Your task to perform on an android device: Go to Yahoo.com Image 0: 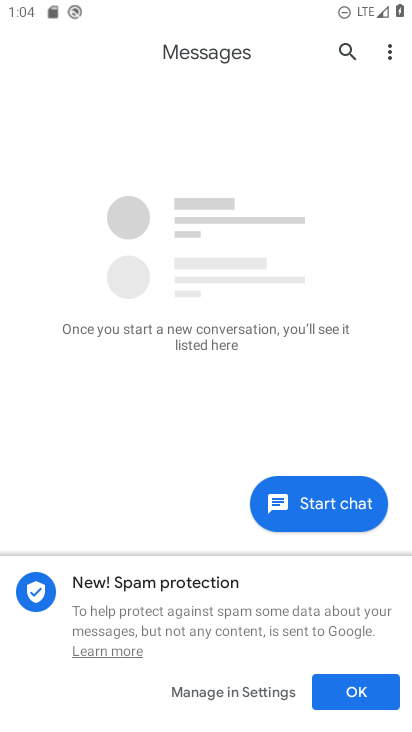
Step 0: press home button
Your task to perform on an android device: Go to Yahoo.com Image 1: 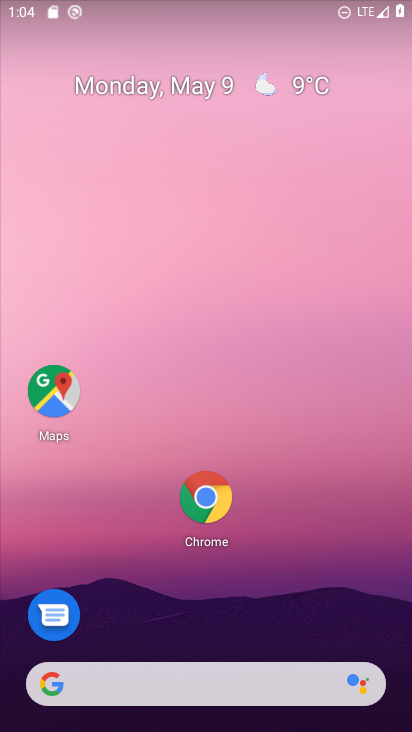
Step 1: click (210, 495)
Your task to perform on an android device: Go to Yahoo.com Image 2: 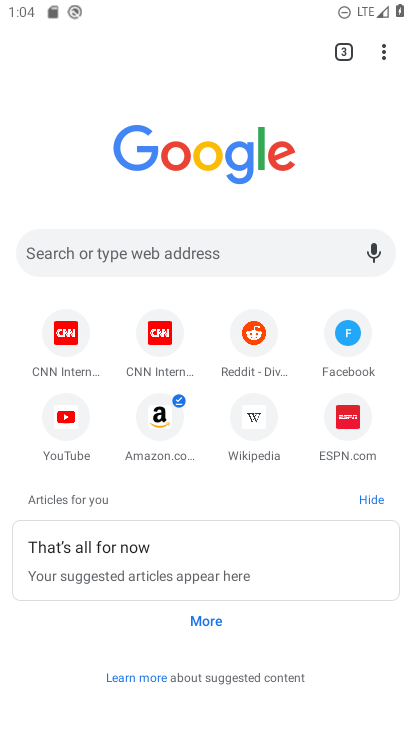
Step 2: click (232, 253)
Your task to perform on an android device: Go to Yahoo.com Image 3: 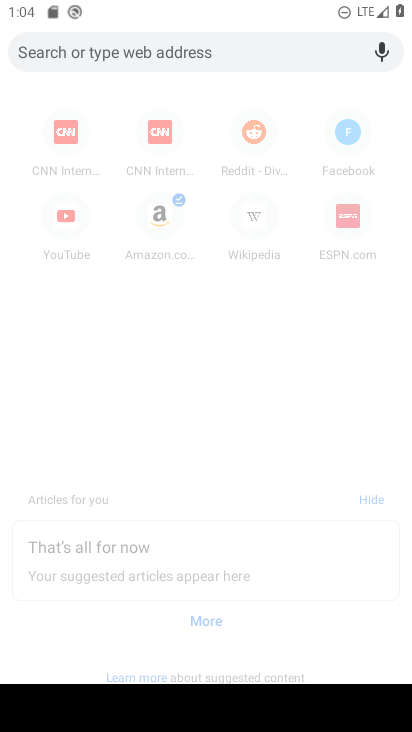
Step 3: type "yahoo.com"
Your task to perform on an android device: Go to Yahoo.com Image 4: 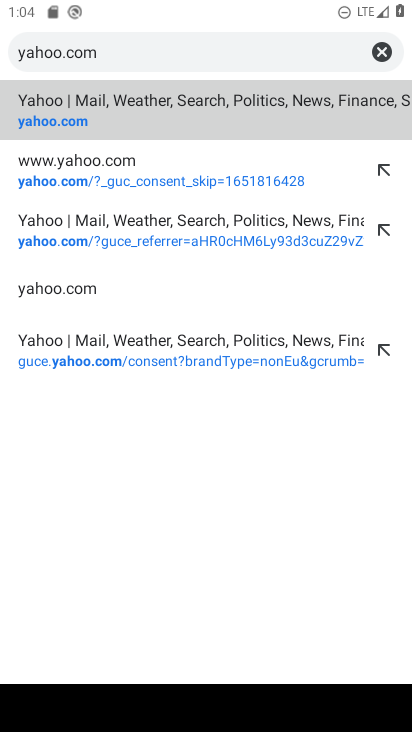
Step 4: click (106, 105)
Your task to perform on an android device: Go to Yahoo.com Image 5: 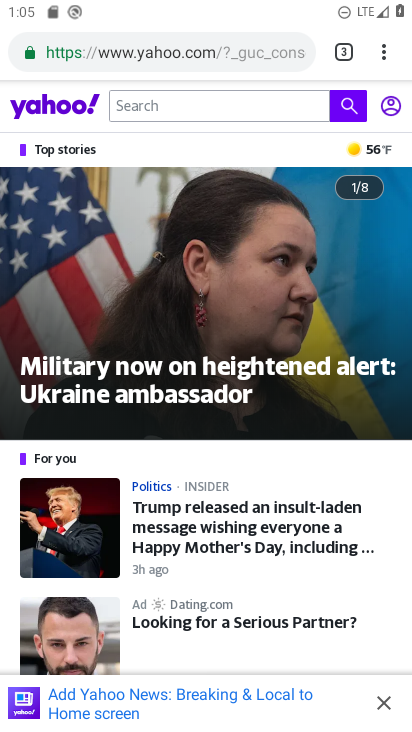
Step 5: task complete